Your task to perform on an android device: Search for the best selling books Image 0: 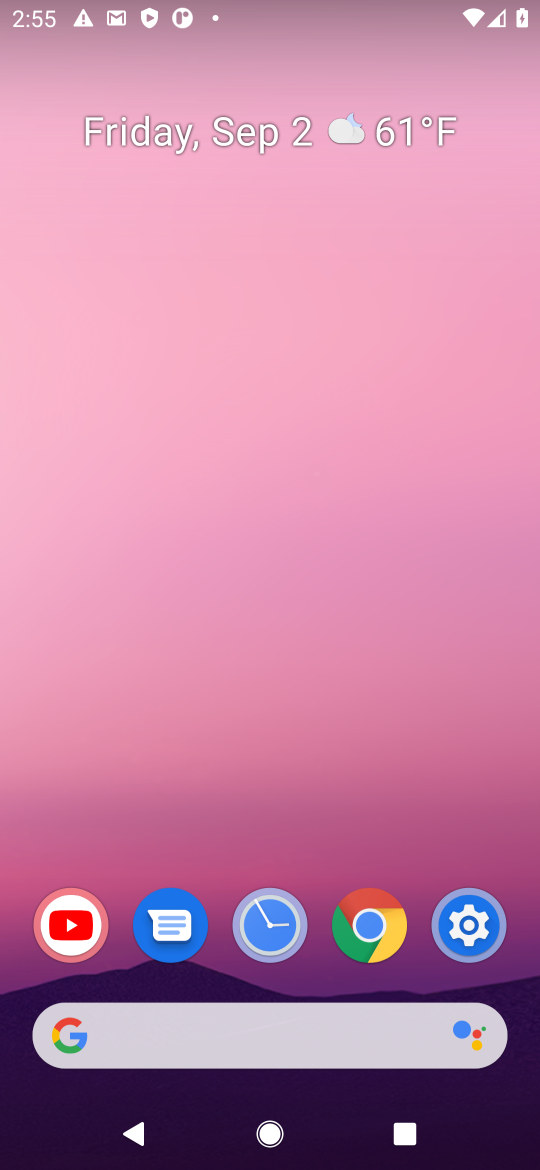
Step 0: press home button
Your task to perform on an android device: Search for the best selling books Image 1: 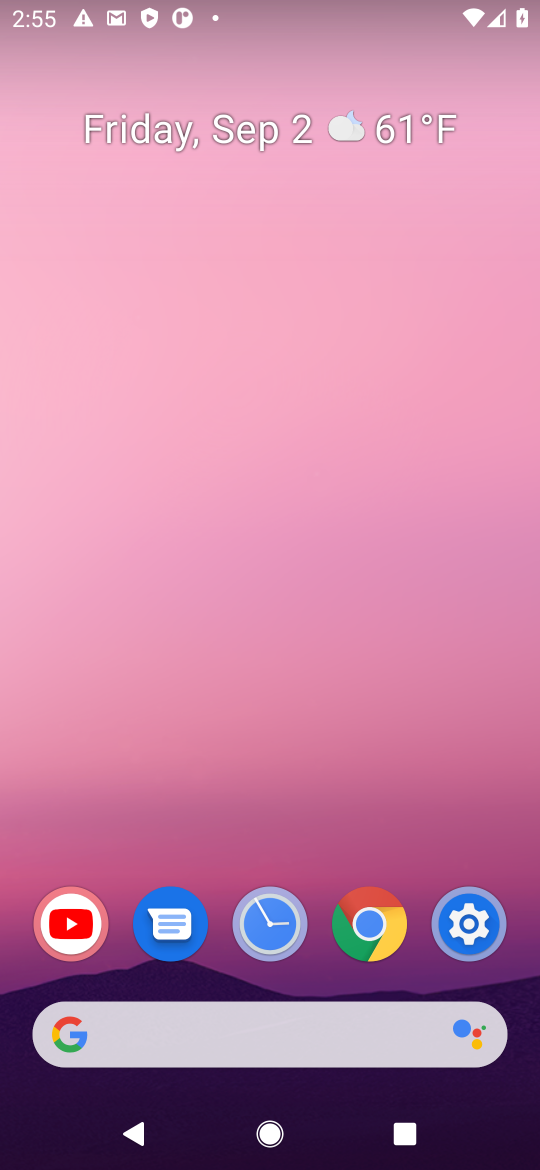
Step 1: click (387, 1028)
Your task to perform on an android device: Search for the best selling books Image 2: 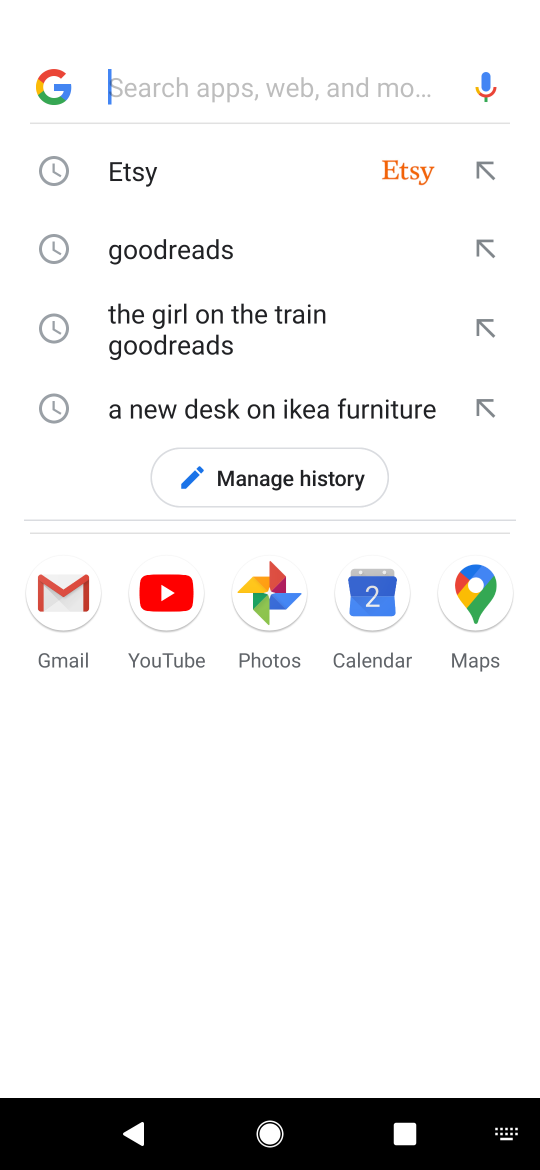
Step 2: press enter
Your task to perform on an android device: Search for the best selling books Image 3: 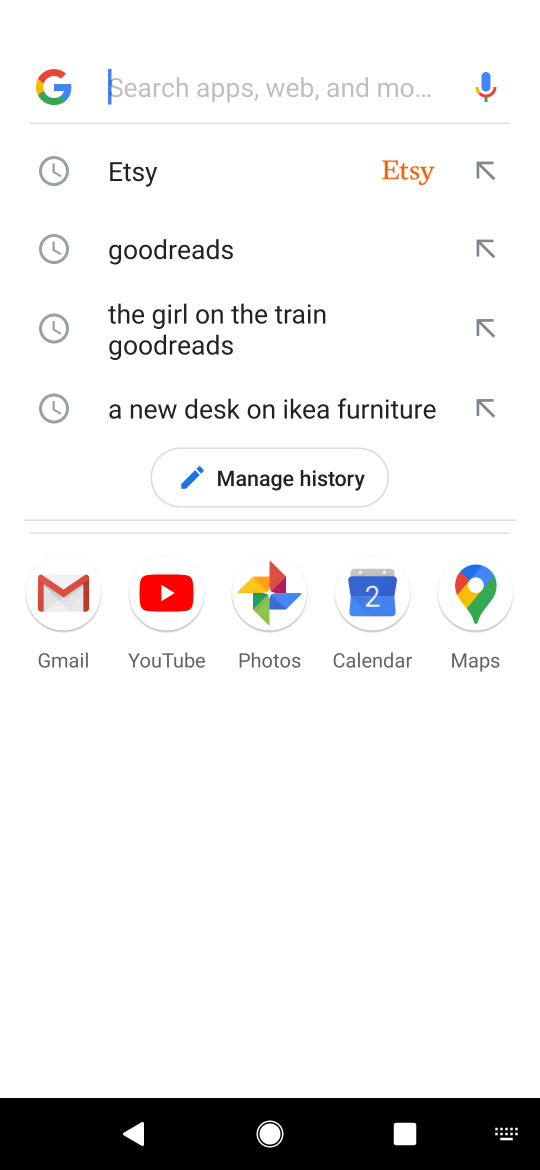
Step 3: type "best selling books"
Your task to perform on an android device: Search for the best selling books Image 4: 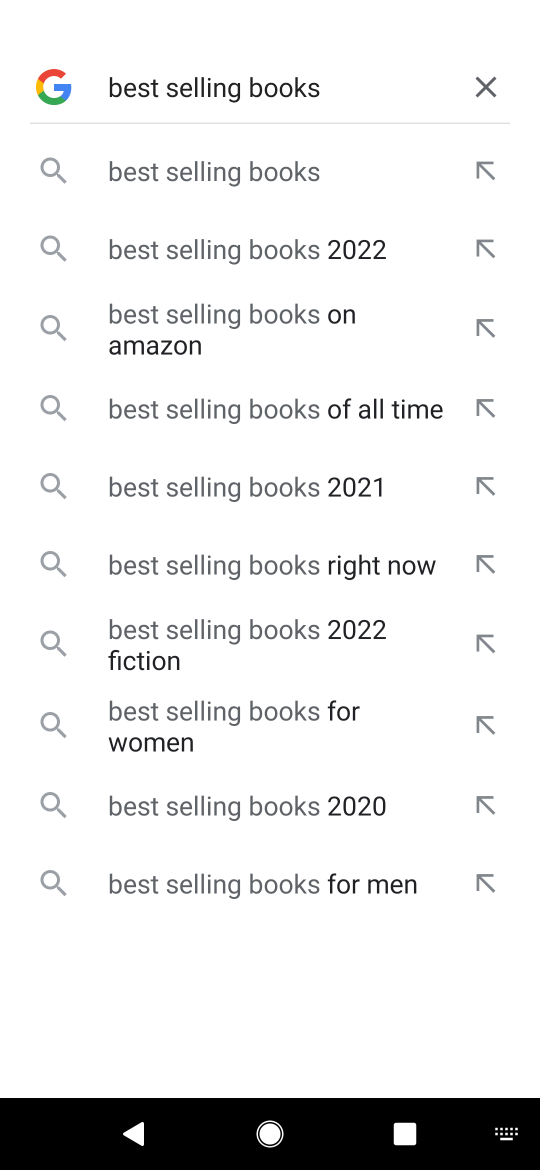
Step 4: click (244, 170)
Your task to perform on an android device: Search for the best selling books Image 5: 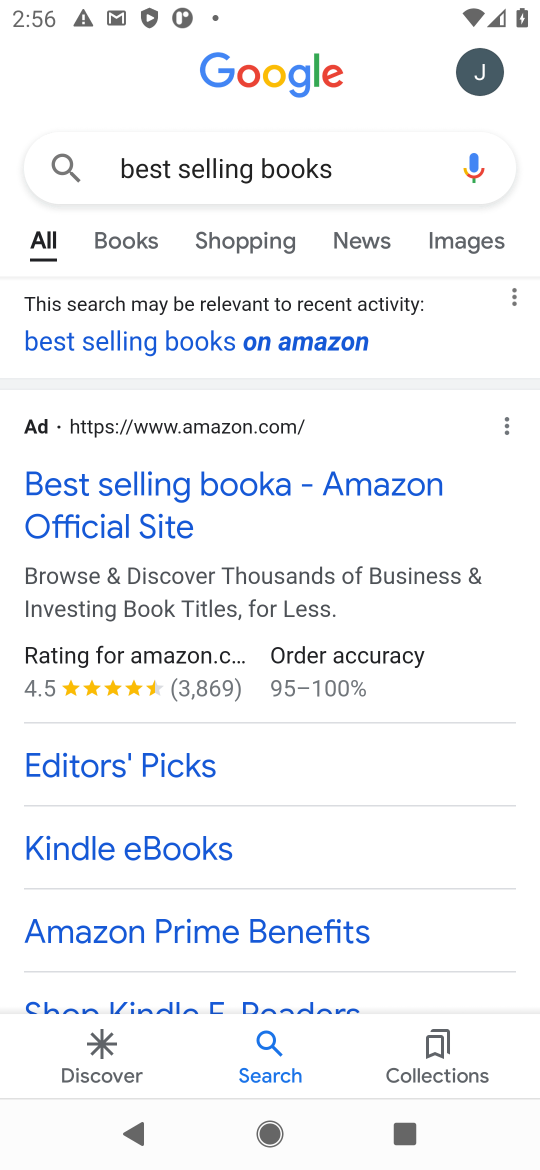
Step 5: click (298, 352)
Your task to perform on an android device: Search for the best selling books Image 6: 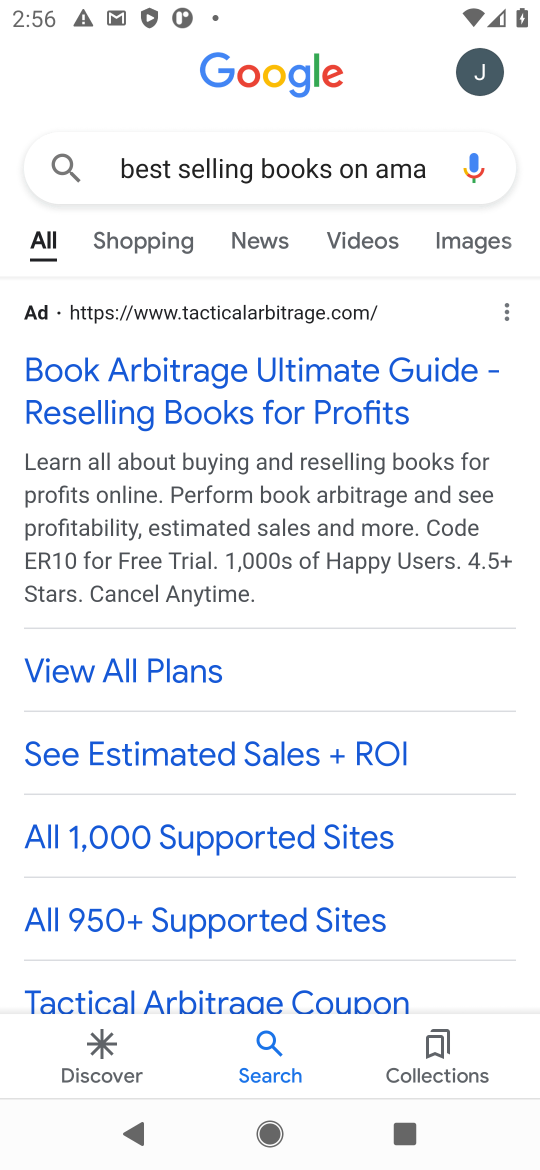
Step 6: drag from (470, 824) to (498, 529)
Your task to perform on an android device: Search for the best selling books Image 7: 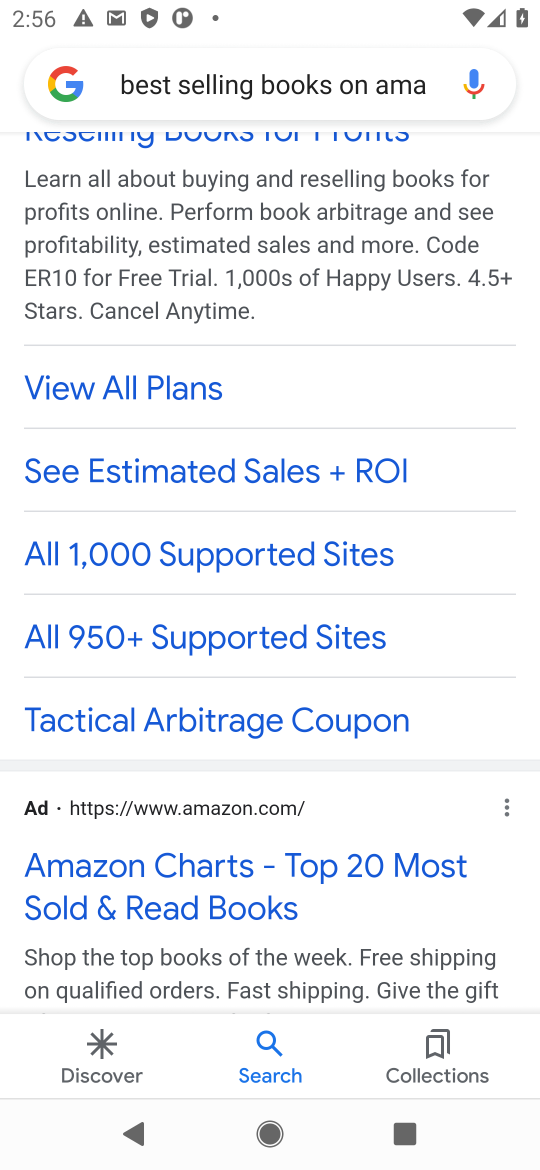
Step 7: drag from (404, 860) to (415, 655)
Your task to perform on an android device: Search for the best selling books Image 8: 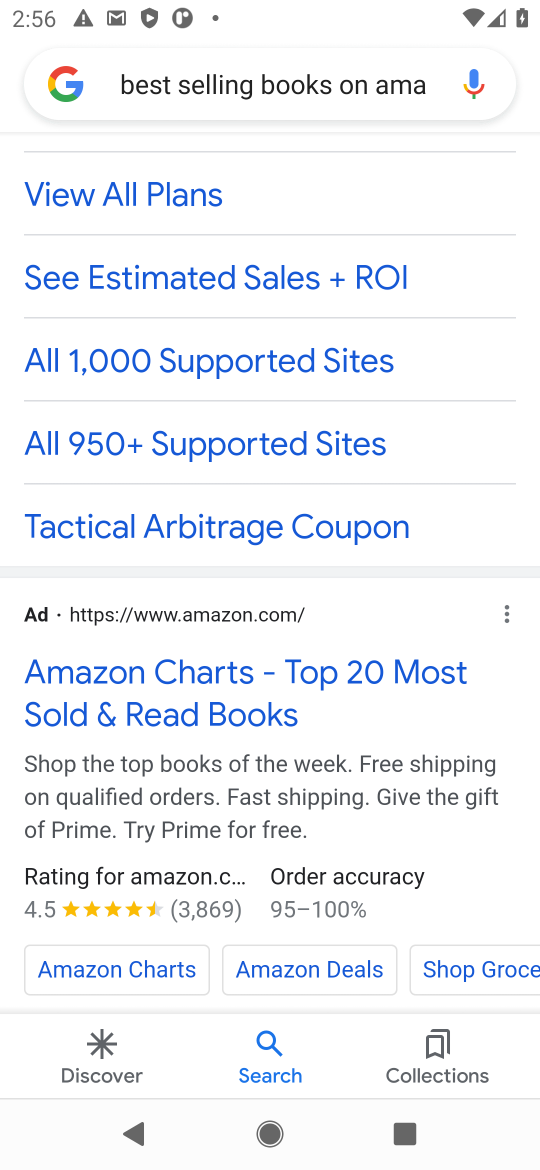
Step 8: click (367, 693)
Your task to perform on an android device: Search for the best selling books Image 9: 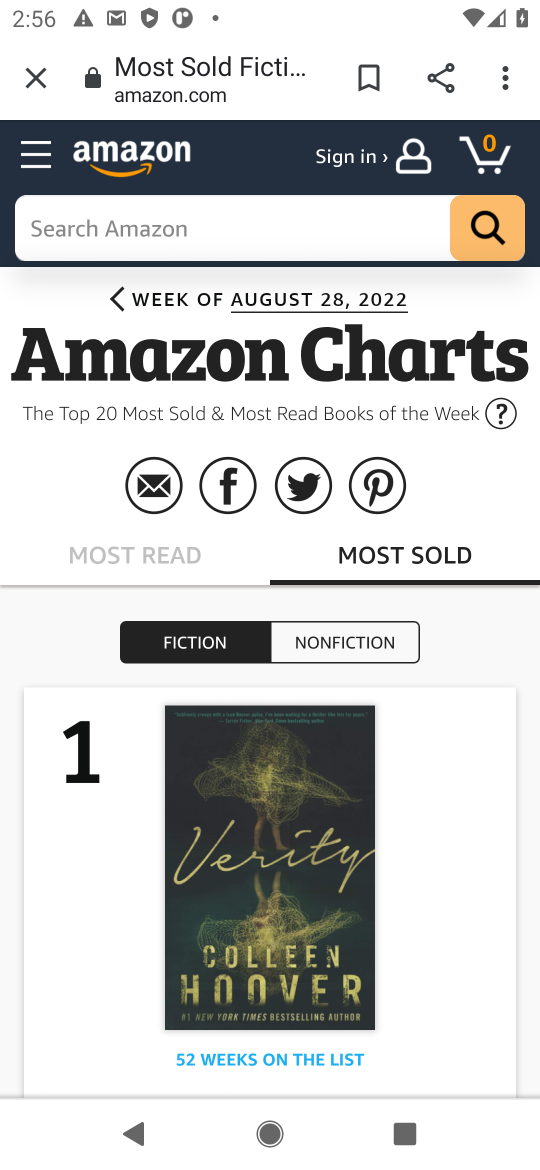
Step 9: task complete